Your task to perform on an android device: Open privacy settings Image 0: 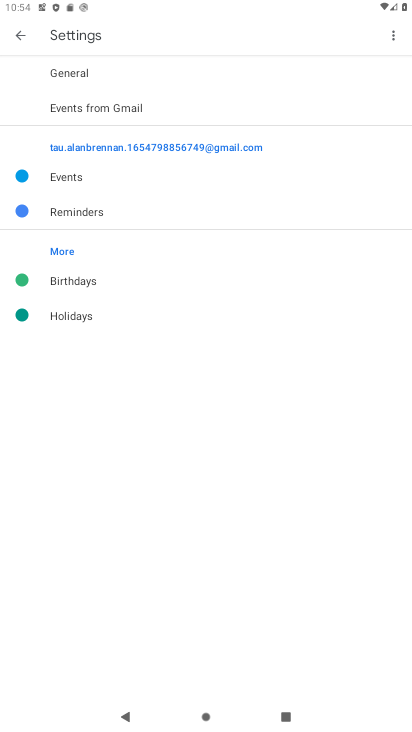
Step 0: press home button
Your task to perform on an android device: Open privacy settings Image 1: 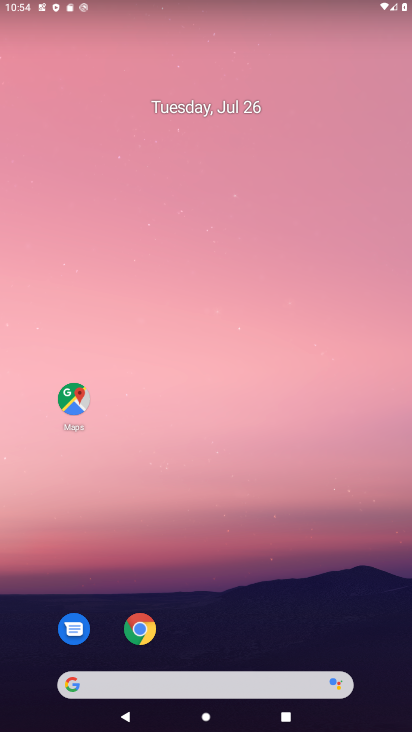
Step 1: drag from (186, 628) to (182, 193)
Your task to perform on an android device: Open privacy settings Image 2: 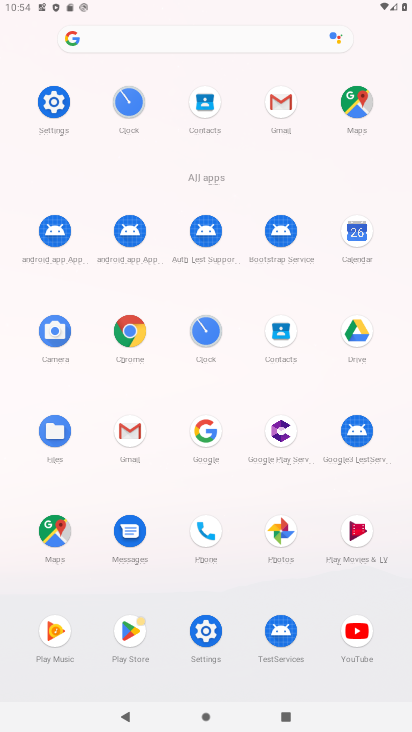
Step 2: click (51, 103)
Your task to perform on an android device: Open privacy settings Image 3: 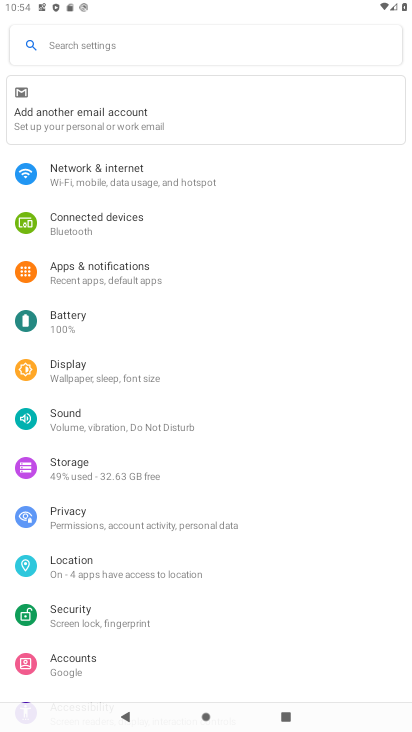
Step 3: click (72, 519)
Your task to perform on an android device: Open privacy settings Image 4: 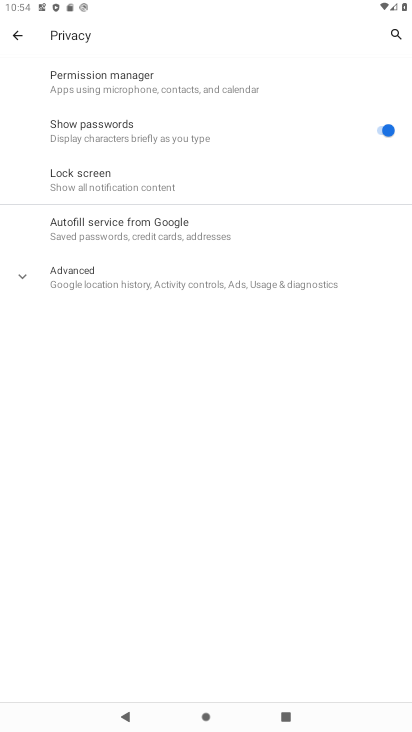
Step 4: task complete